Your task to perform on an android device: stop showing notifications on the lock screen Image 0: 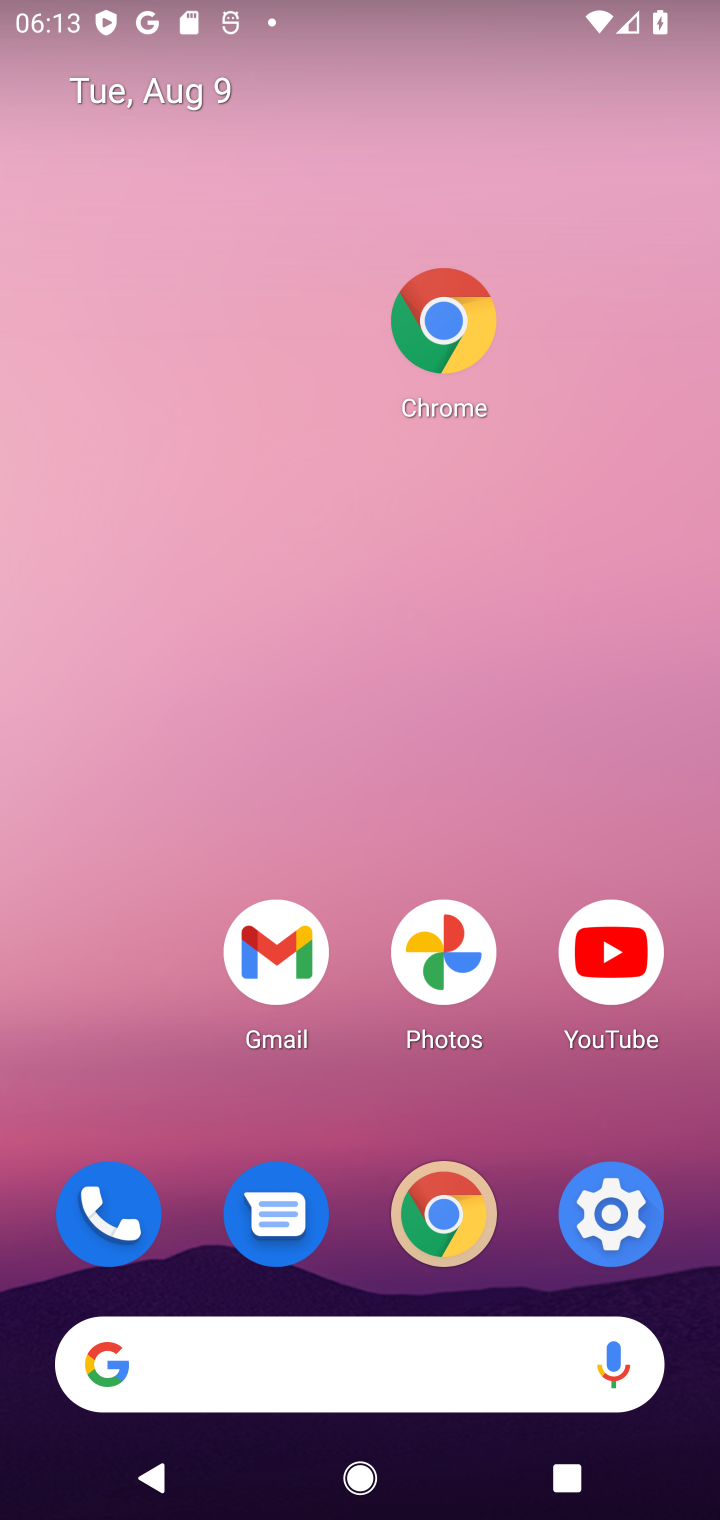
Step 0: click (619, 1250)
Your task to perform on an android device: stop showing notifications on the lock screen Image 1: 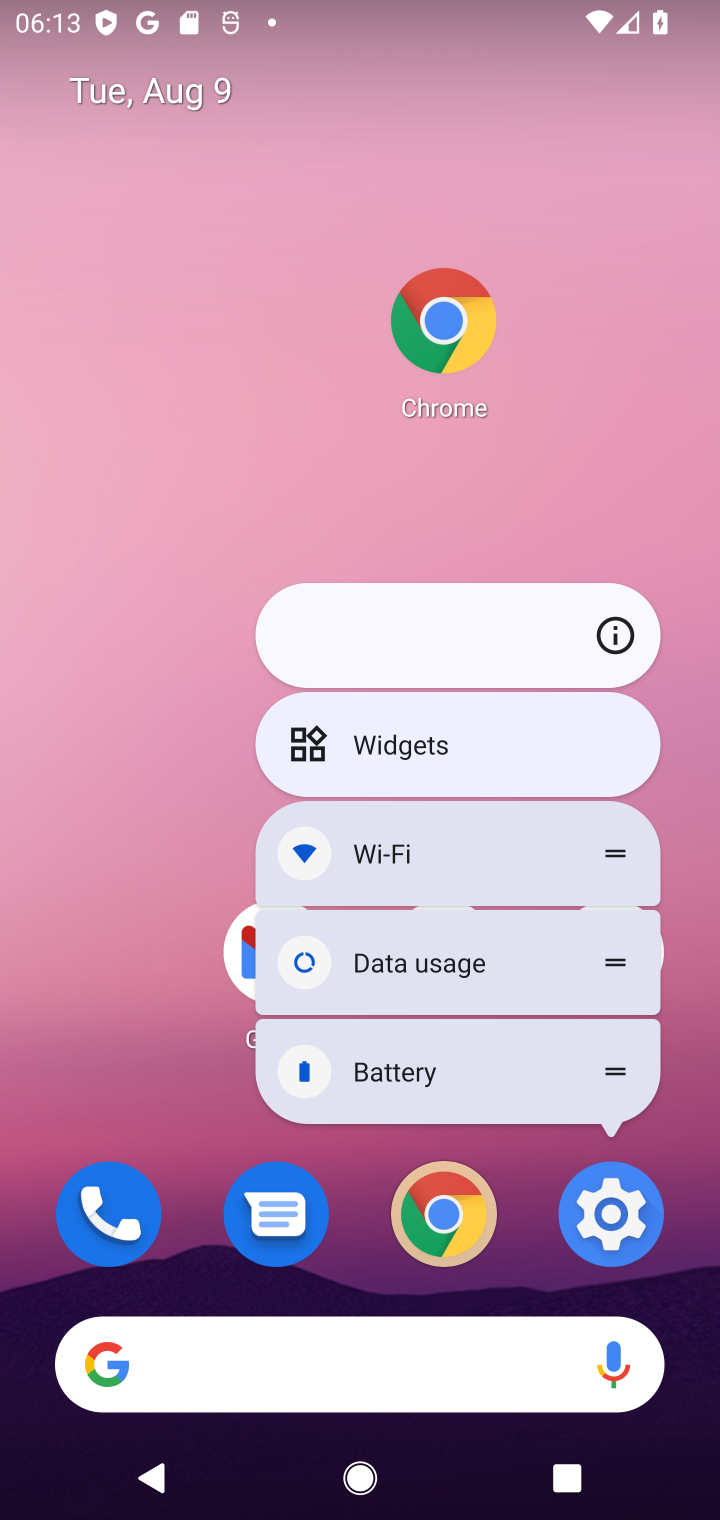
Step 1: click (592, 1207)
Your task to perform on an android device: stop showing notifications on the lock screen Image 2: 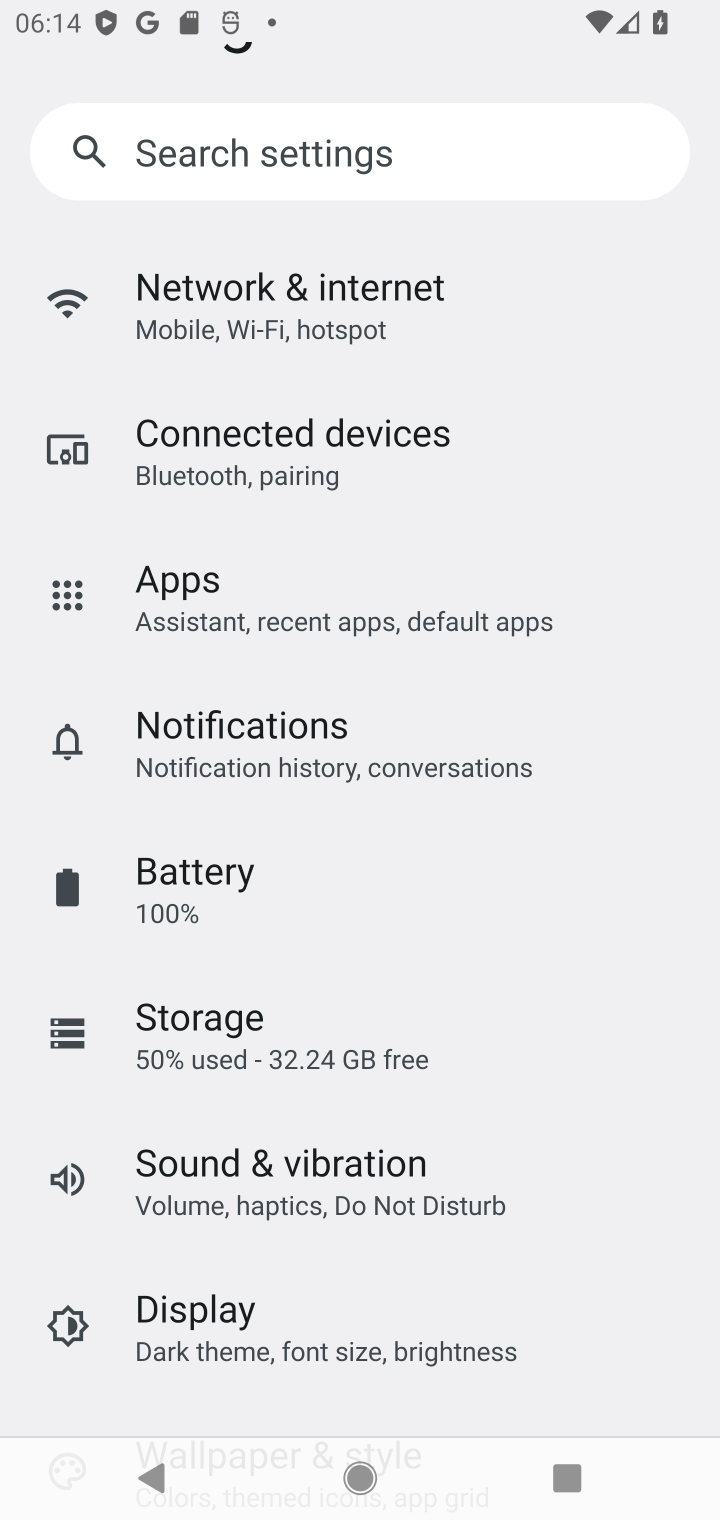
Step 2: click (337, 147)
Your task to perform on an android device: stop showing notifications on the lock screen Image 3: 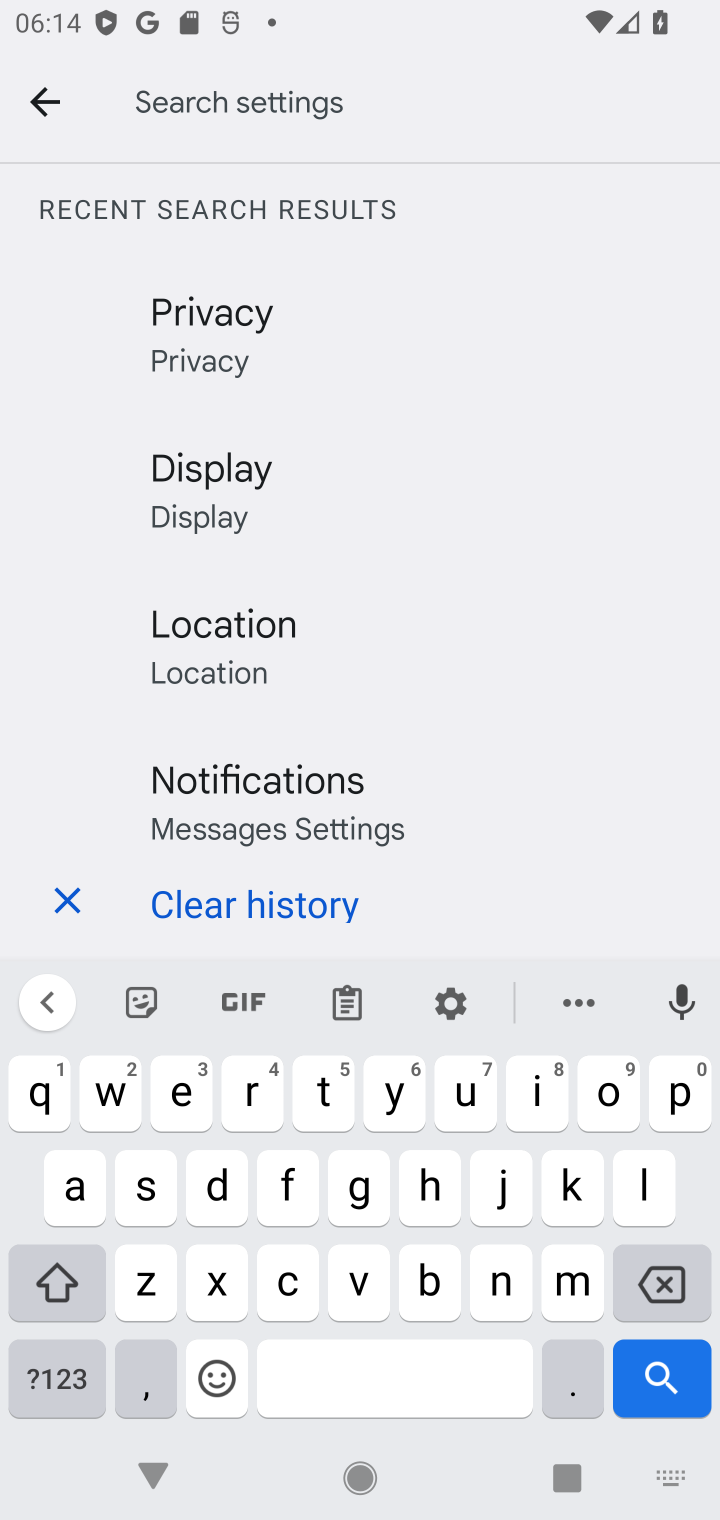
Step 3: click (273, 795)
Your task to perform on an android device: stop showing notifications on the lock screen Image 4: 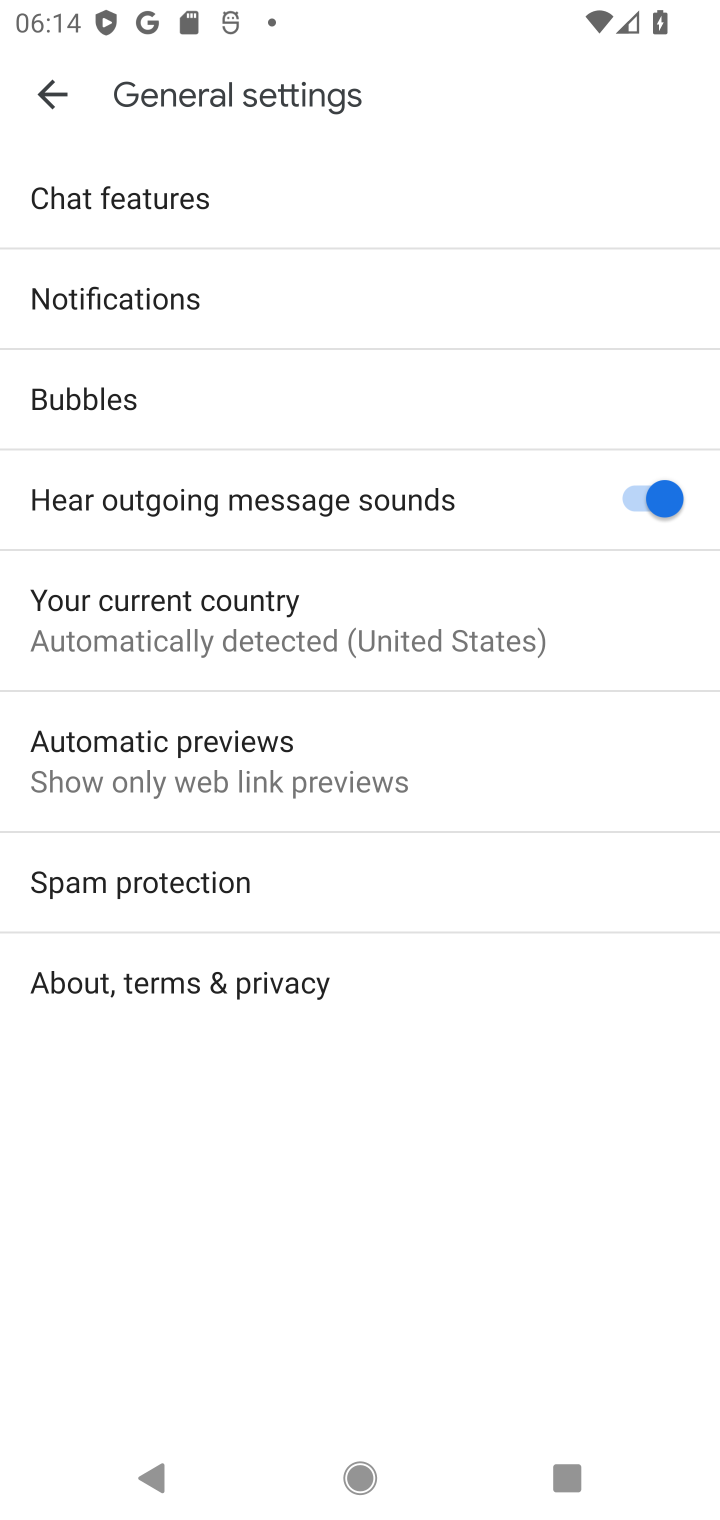
Step 4: click (250, 737)
Your task to perform on an android device: stop showing notifications on the lock screen Image 5: 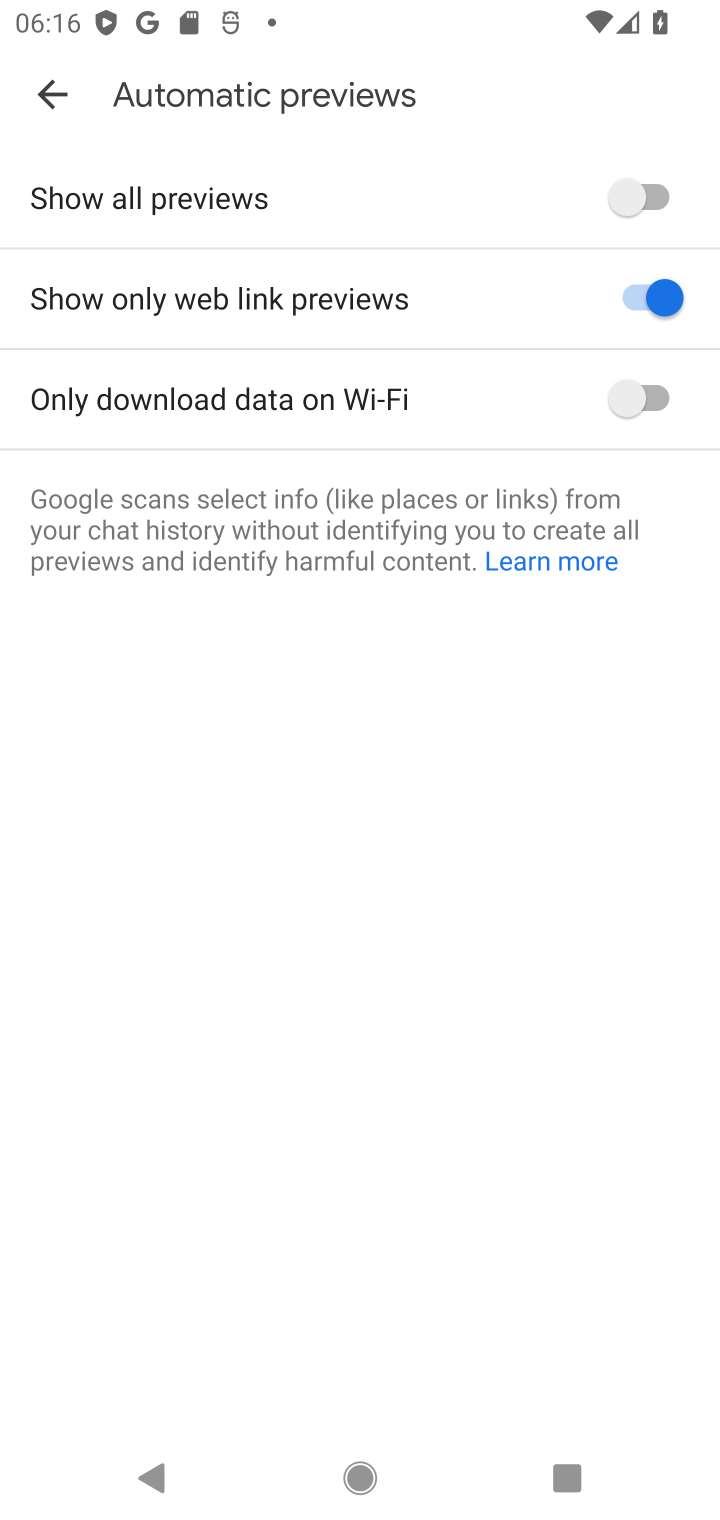
Step 5: task complete